Your task to perform on an android device: make emails show in primary in the gmail app Image 0: 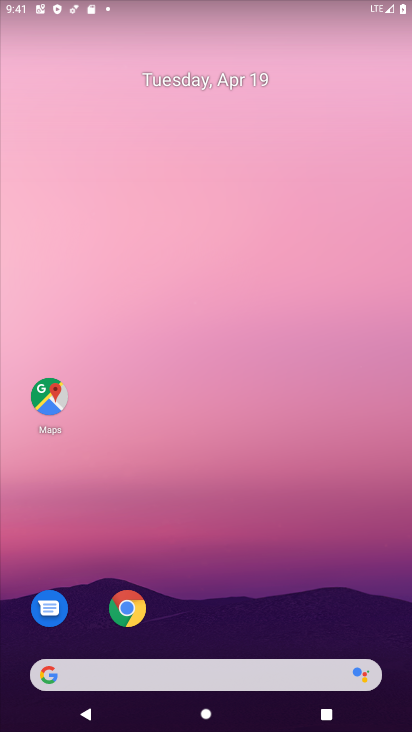
Step 0: drag from (340, 613) to (342, 129)
Your task to perform on an android device: make emails show in primary in the gmail app Image 1: 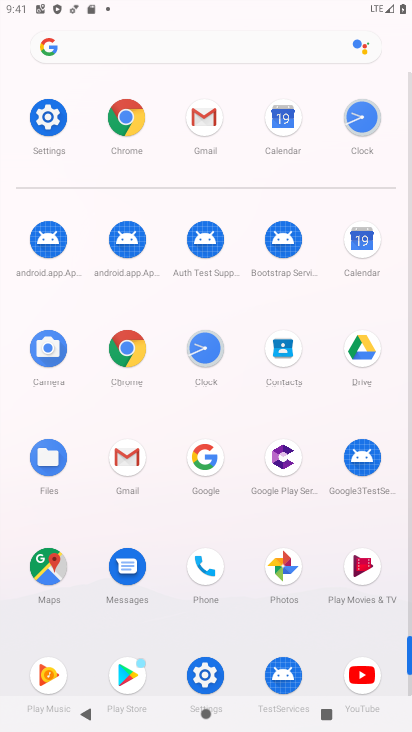
Step 1: click (125, 459)
Your task to perform on an android device: make emails show in primary in the gmail app Image 2: 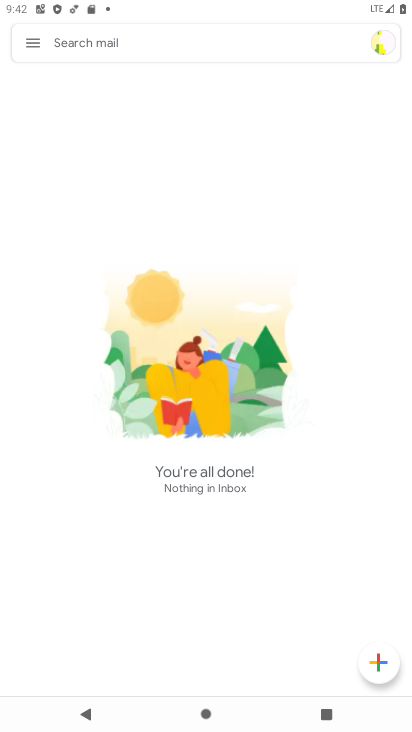
Step 2: click (29, 40)
Your task to perform on an android device: make emails show in primary in the gmail app Image 3: 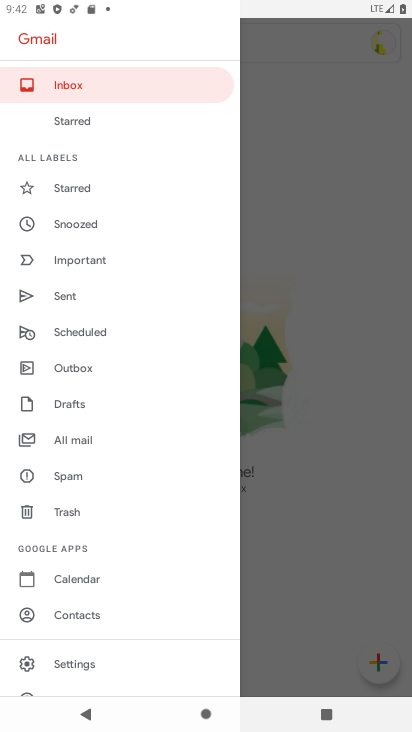
Step 3: click (73, 660)
Your task to perform on an android device: make emails show in primary in the gmail app Image 4: 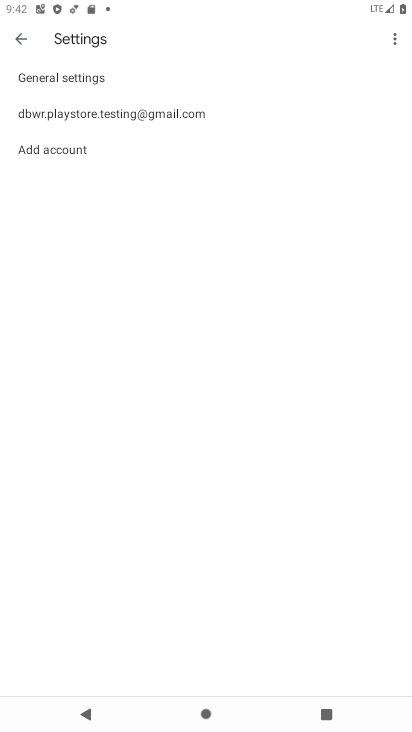
Step 4: click (70, 112)
Your task to perform on an android device: make emails show in primary in the gmail app Image 5: 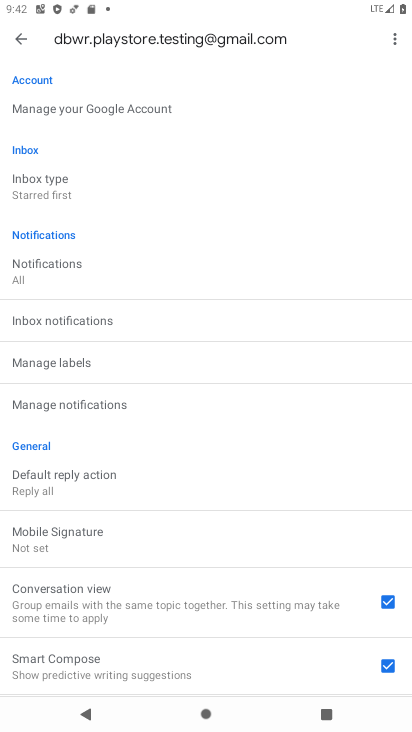
Step 5: click (39, 179)
Your task to perform on an android device: make emails show in primary in the gmail app Image 6: 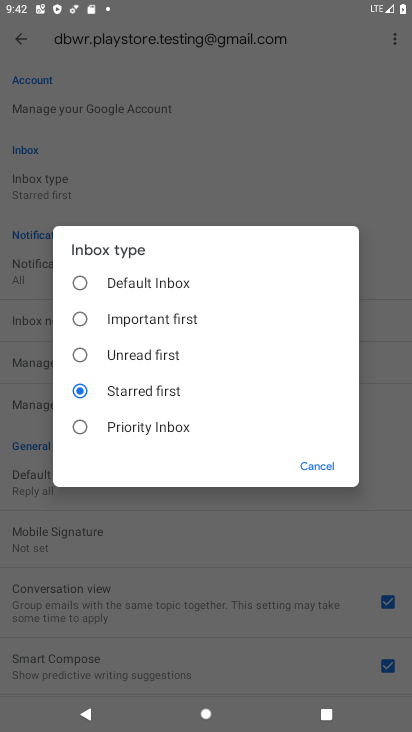
Step 6: click (79, 280)
Your task to perform on an android device: make emails show in primary in the gmail app Image 7: 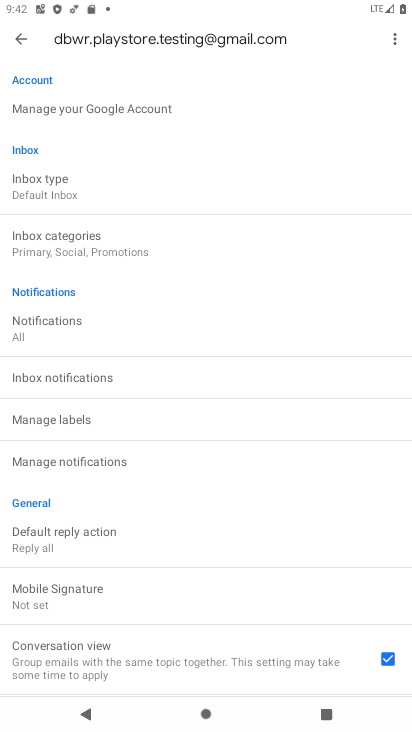
Step 7: click (47, 249)
Your task to perform on an android device: make emails show in primary in the gmail app Image 8: 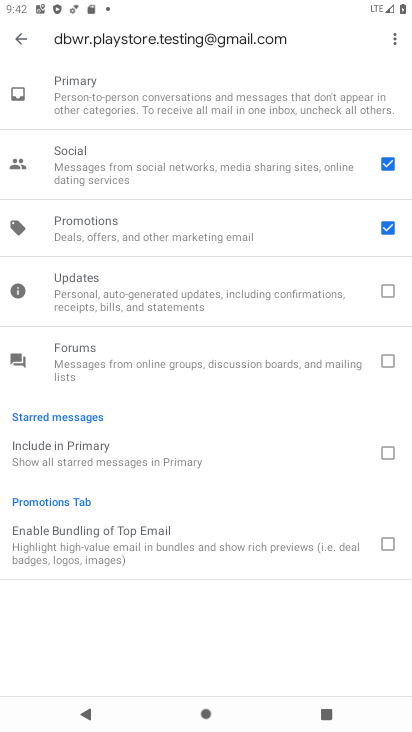
Step 8: click (388, 162)
Your task to perform on an android device: make emails show in primary in the gmail app Image 9: 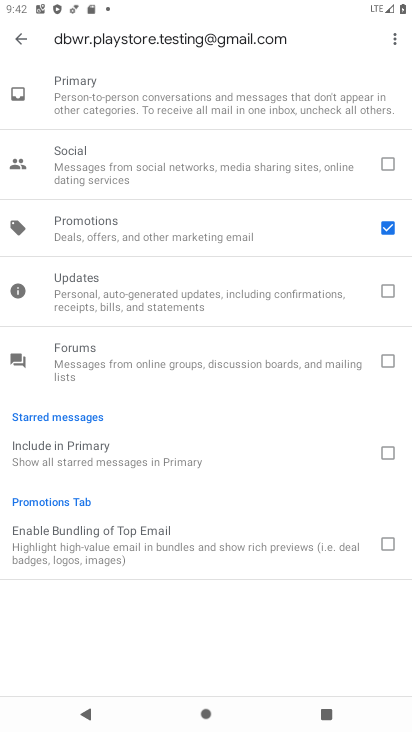
Step 9: click (384, 229)
Your task to perform on an android device: make emails show in primary in the gmail app Image 10: 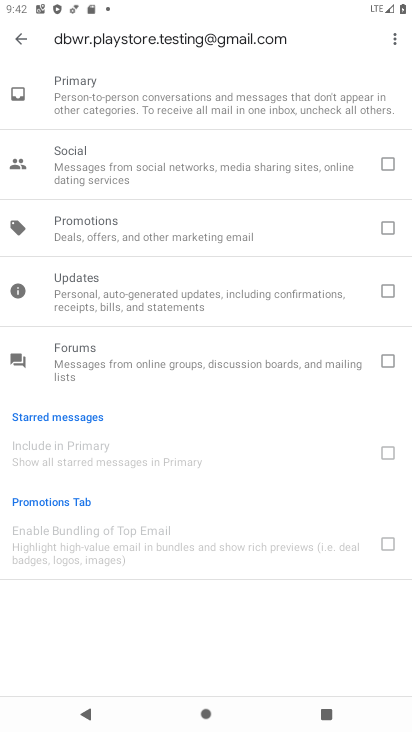
Step 10: task complete